Your task to perform on an android device: change notifications settings Image 0: 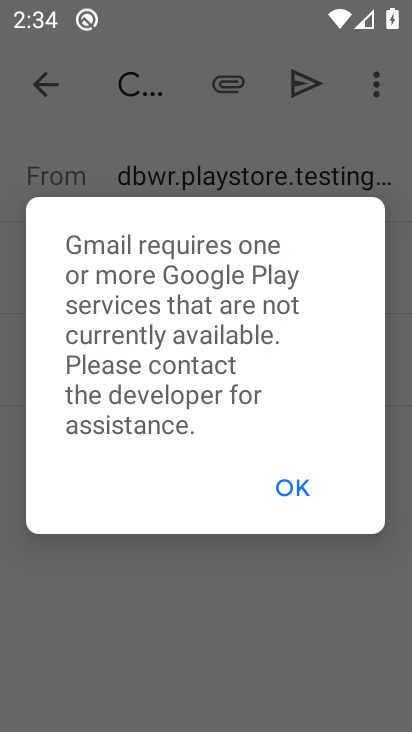
Step 0: click (277, 486)
Your task to perform on an android device: change notifications settings Image 1: 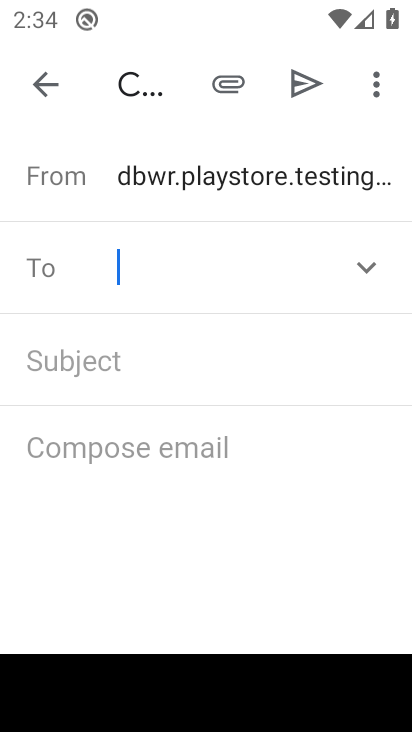
Step 1: press home button
Your task to perform on an android device: change notifications settings Image 2: 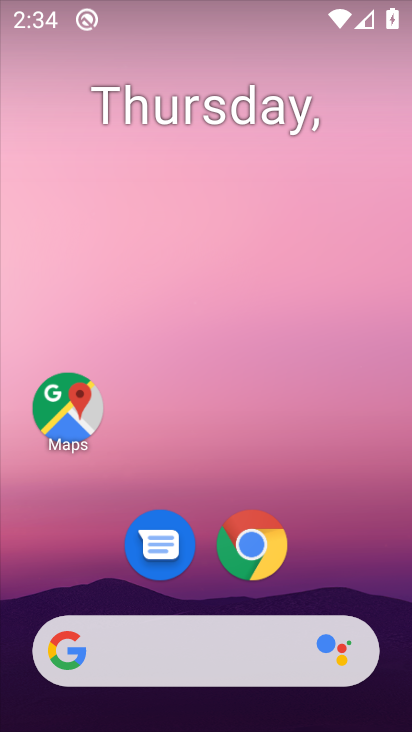
Step 2: drag from (182, 618) to (253, 100)
Your task to perform on an android device: change notifications settings Image 3: 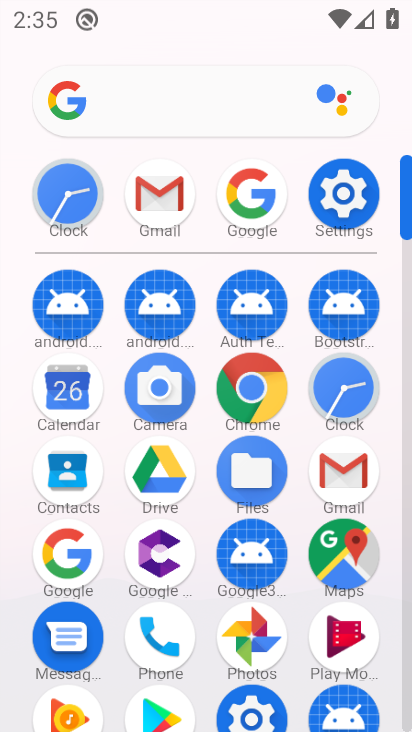
Step 3: click (343, 200)
Your task to perform on an android device: change notifications settings Image 4: 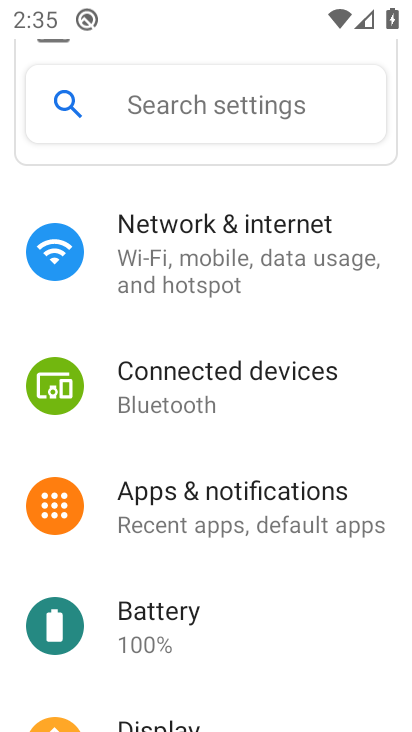
Step 4: click (189, 497)
Your task to perform on an android device: change notifications settings Image 5: 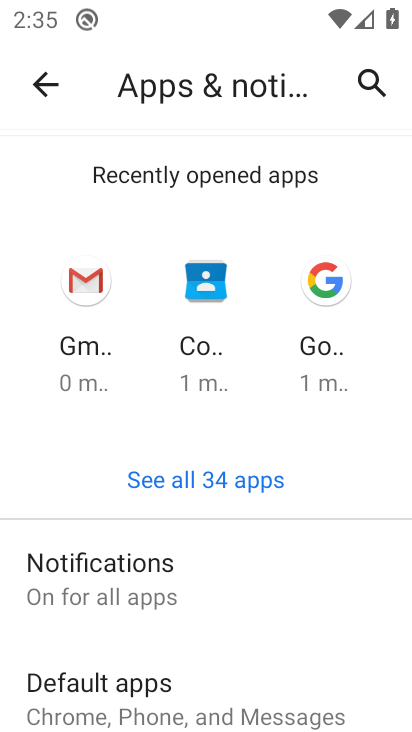
Step 5: click (125, 586)
Your task to perform on an android device: change notifications settings Image 6: 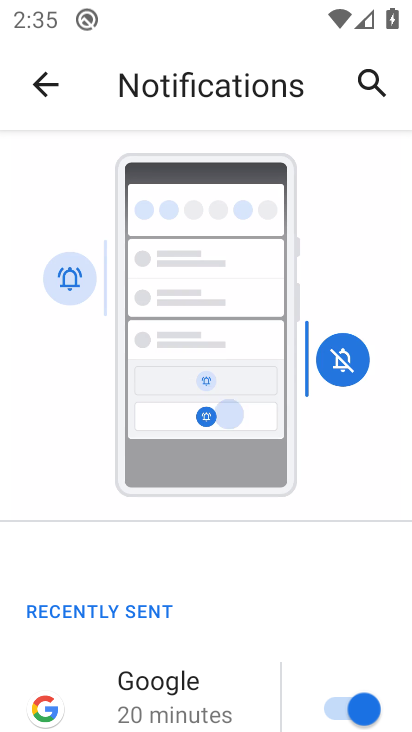
Step 6: drag from (258, 645) to (302, 195)
Your task to perform on an android device: change notifications settings Image 7: 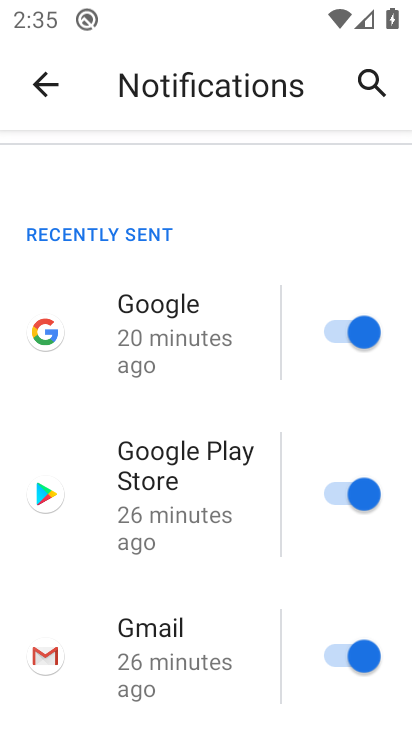
Step 7: click (348, 340)
Your task to perform on an android device: change notifications settings Image 8: 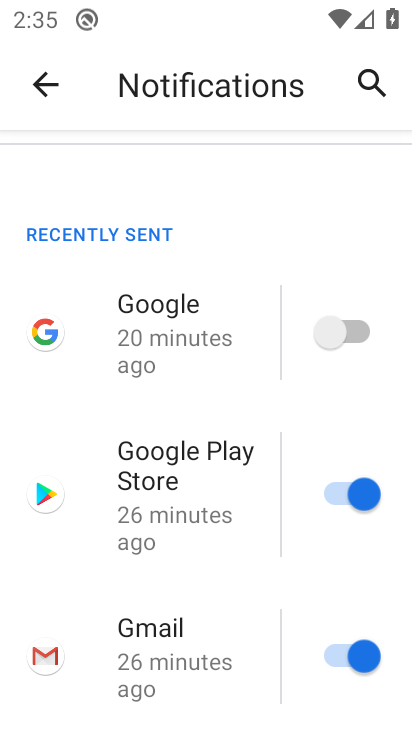
Step 8: click (355, 490)
Your task to perform on an android device: change notifications settings Image 9: 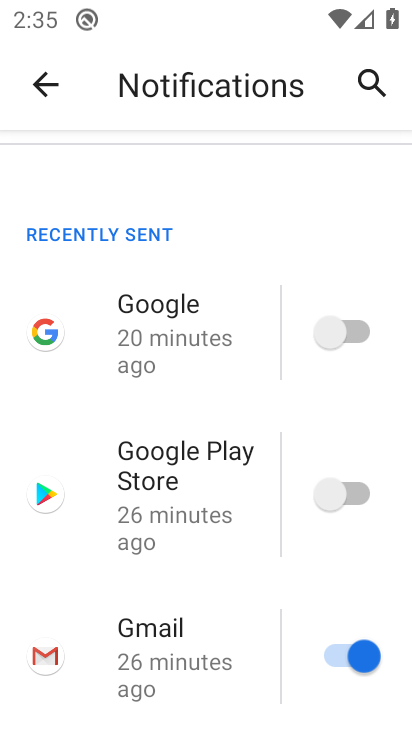
Step 9: click (345, 660)
Your task to perform on an android device: change notifications settings Image 10: 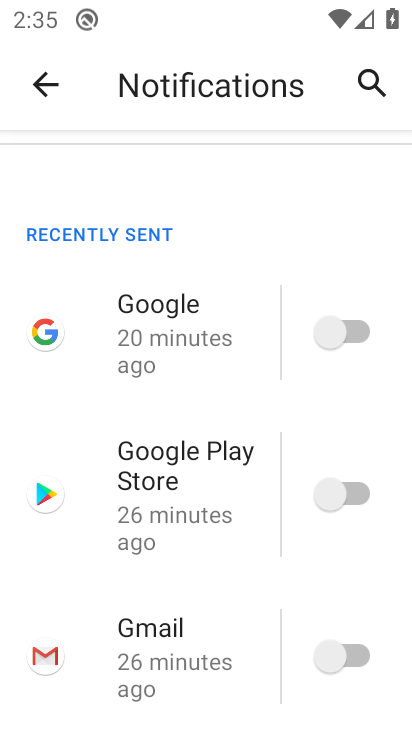
Step 10: drag from (297, 715) to (339, 329)
Your task to perform on an android device: change notifications settings Image 11: 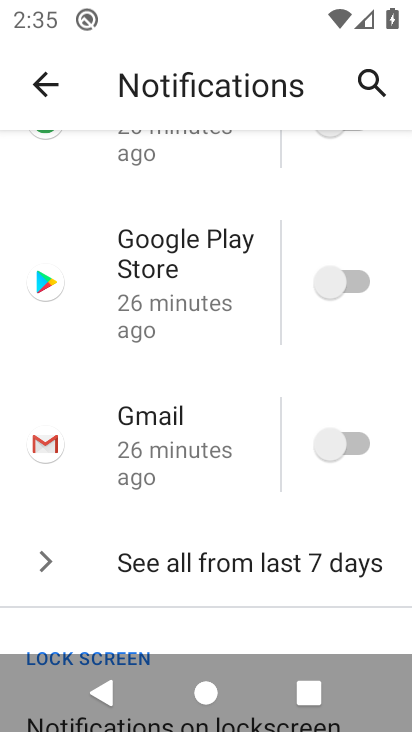
Step 11: click (321, 564)
Your task to perform on an android device: change notifications settings Image 12: 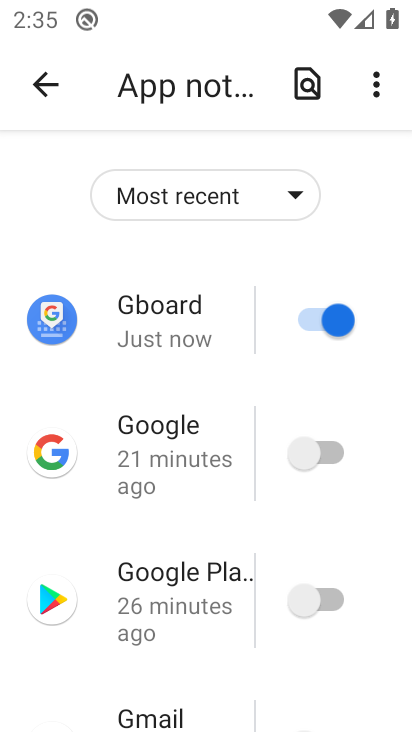
Step 12: click (319, 320)
Your task to perform on an android device: change notifications settings Image 13: 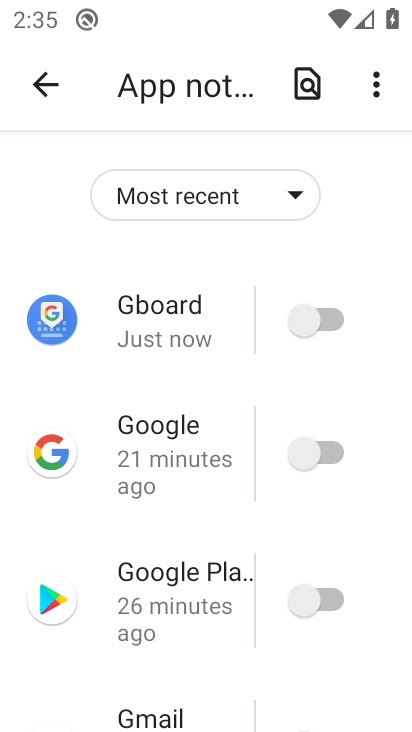
Step 13: drag from (239, 636) to (285, 133)
Your task to perform on an android device: change notifications settings Image 14: 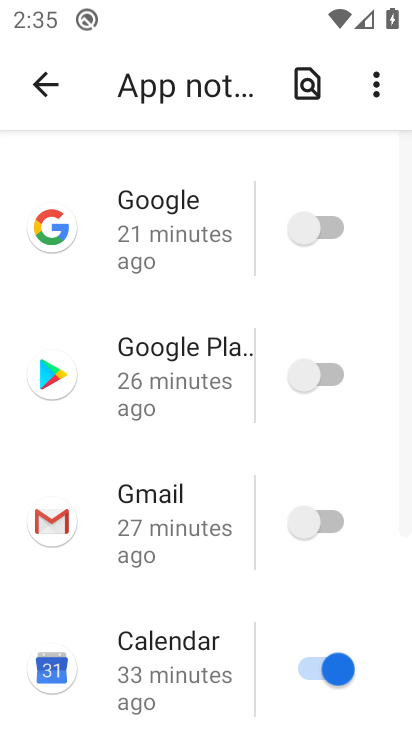
Step 14: click (310, 667)
Your task to perform on an android device: change notifications settings Image 15: 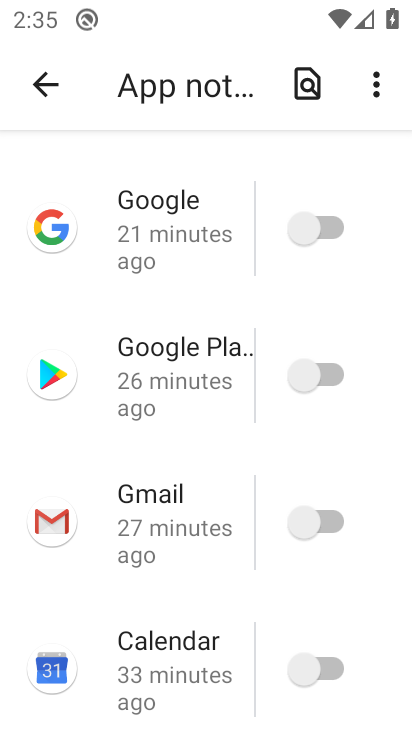
Step 15: drag from (227, 668) to (212, 300)
Your task to perform on an android device: change notifications settings Image 16: 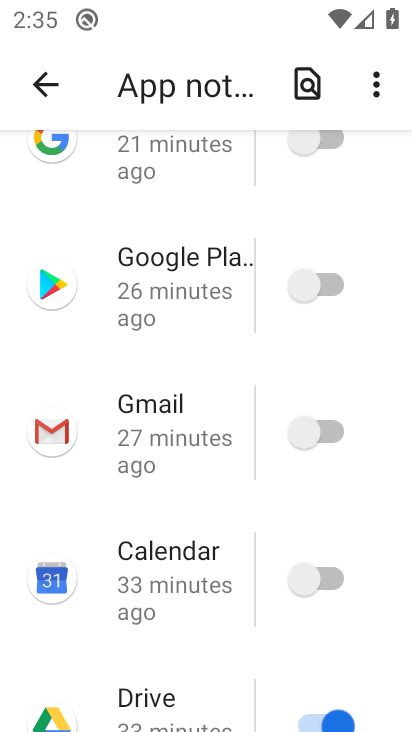
Step 16: click (313, 729)
Your task to perform on an android device: change notifications settings Image 17: 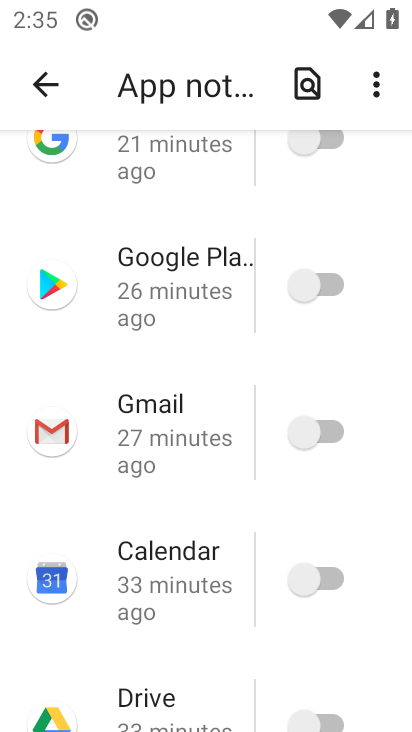
Step 17: drag from (198, 671) to (244, 157)
Your task to perform on an android device: change notifications settings Image 18: 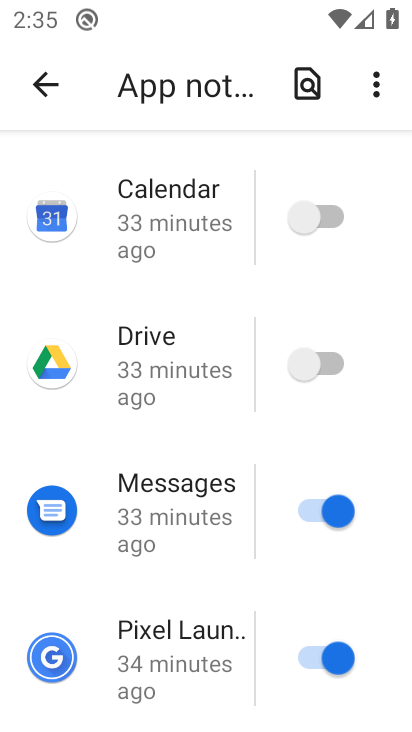
Step 18: click (318, 660)
Your task to perform on an android device: change notifications settings Image 19: 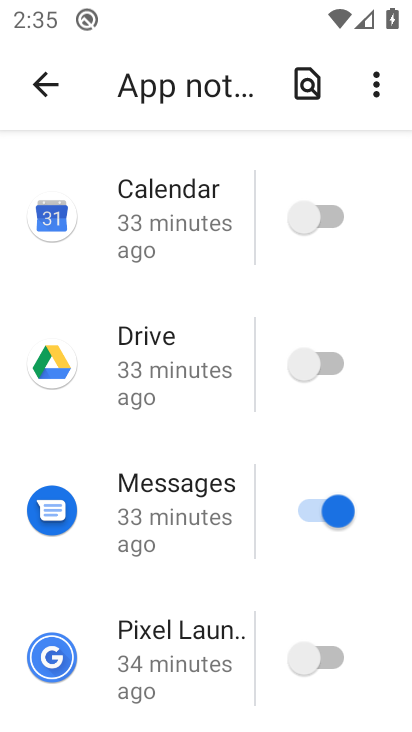
Step 19: click (323, 505)
Your task to perform on an android device: change notifications settings Image 20: 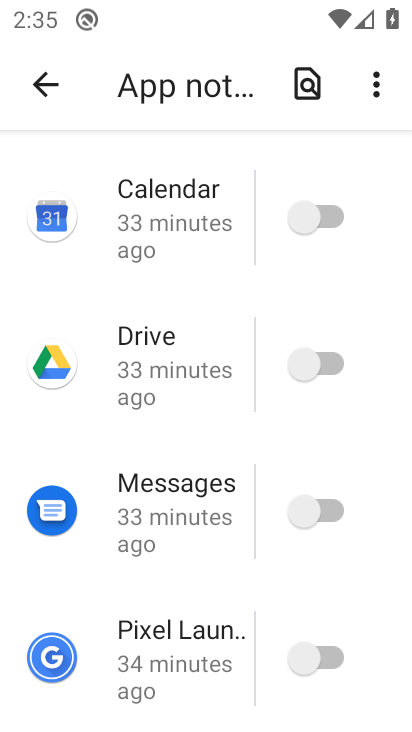
Step 20: task complete